Your task to perform on an android device: remove spam from my inbox in the gmail app Image 0: 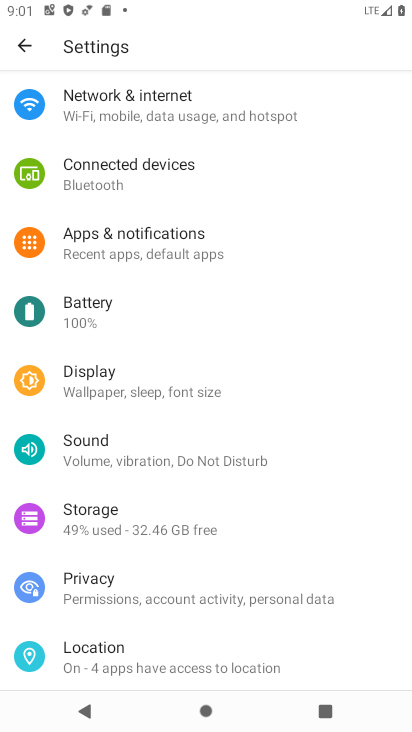
Step 0: press home button
Your task to perform on an android device: remove spam from my inbox in the gmail app Image 1: 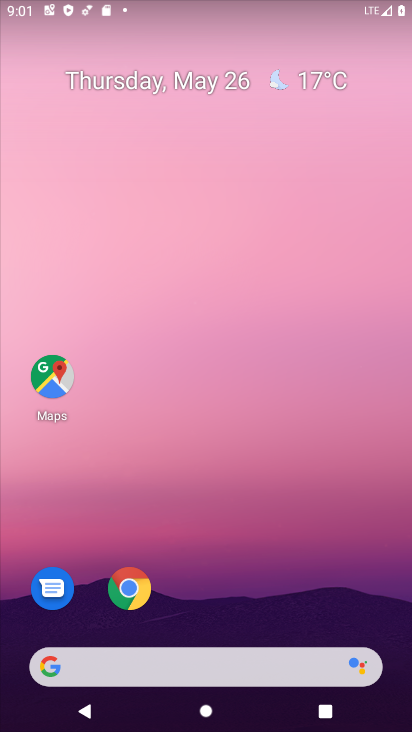
Step 1: drag from (377, 602) to (329, 188)
Your task to perform on an android device: remove spam from my inbox in the gmail app Image 2: 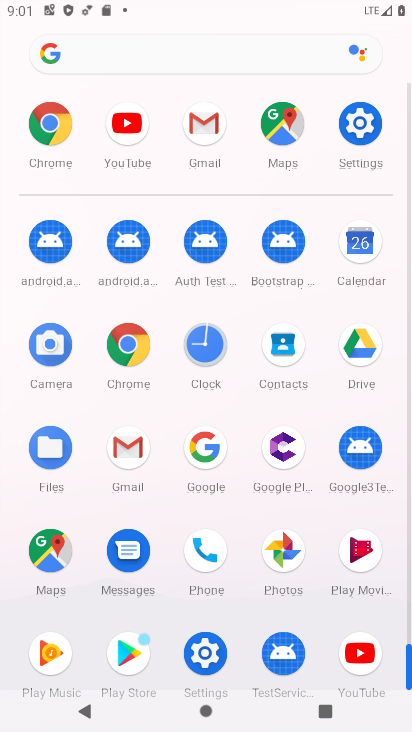
Step 2: click (125, 445)
Your task to perform on an android device: remove spam from my inbox in the gmail app Image 3: 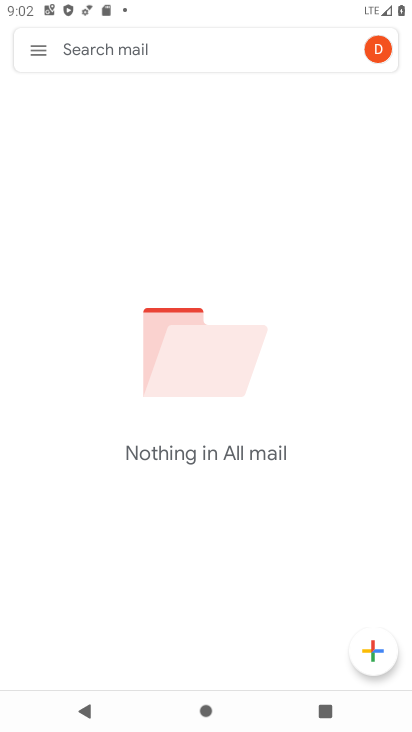
Step 3: click (35, 44)
Your task to perform on an android device: remove spam from my inbox in the gmail app Image 4: 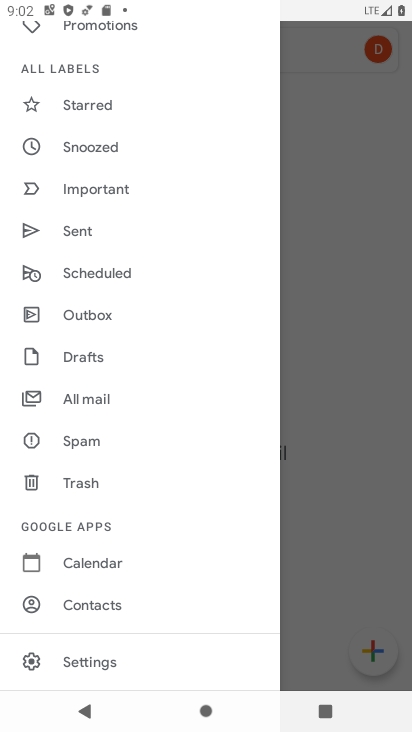
Step 4: click (88, 445)
Your task to perform on an android device: remove spam from my inbox in the gmail app Image 5: 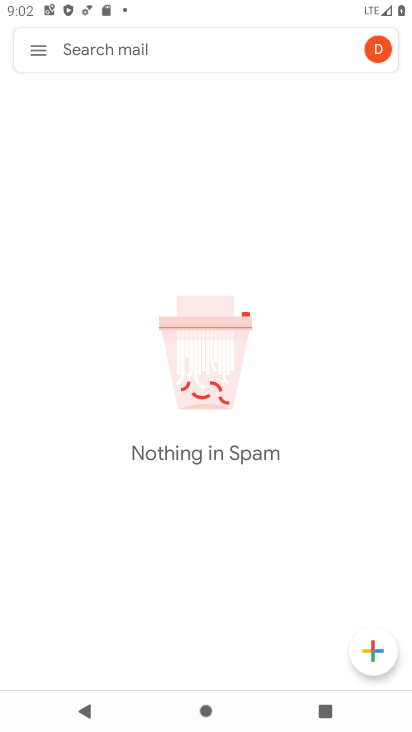
Step 5: task complete